Your task to perform on an android device: Go to privacy settings Image 0: 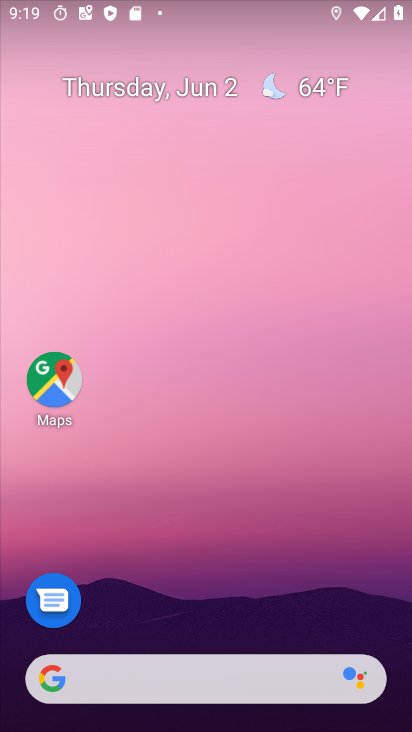
Step 0: drag from (212, 590) to (252, 45)
Your task to perform on an android device: Go to privacy settings Image 1: 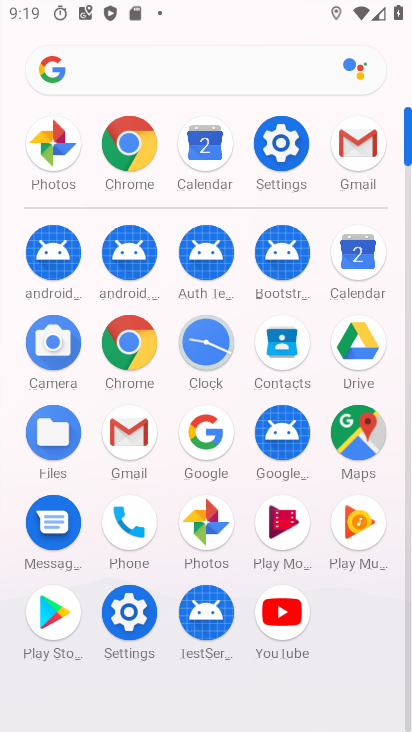
Step 1: click (281, 147)
Your task to perform on an android device: Go to privacy settings Image 2: 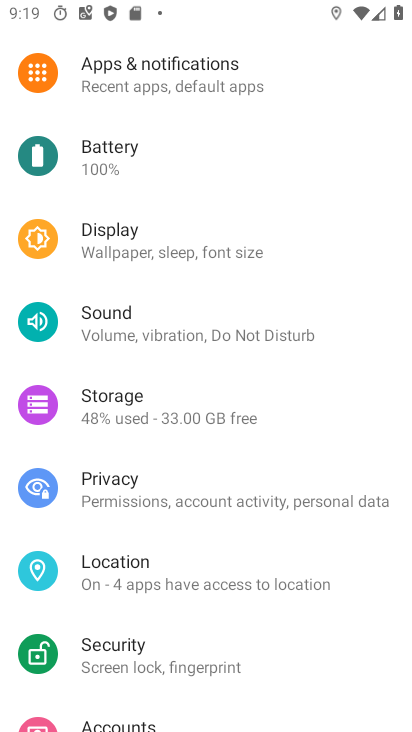
Step 2: drag from (159, 357) to (163, 172)
Your task to perform on an android device: Go to privacy settings Image 3: 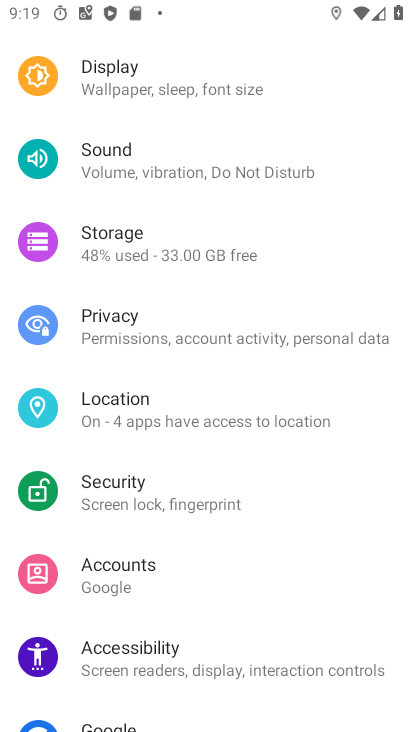
Step 3: click (134, 331)
Your task to perform on an android device: Go to privacy settings Image 4: 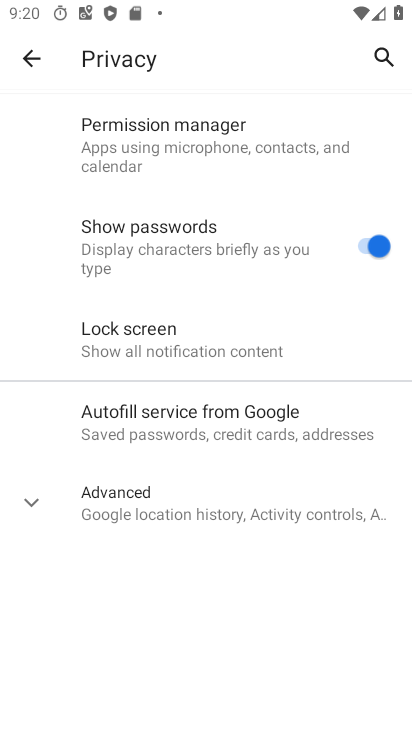
Step 4: task complete